Your task to perform on an android device: What's the weather today? Image 0: 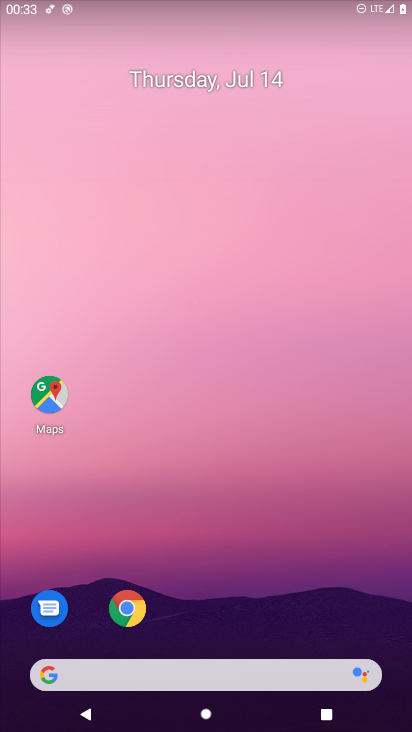
Step 0: click (52, 676)
Your task to perform on an android device: What's the weather today? Image 1: 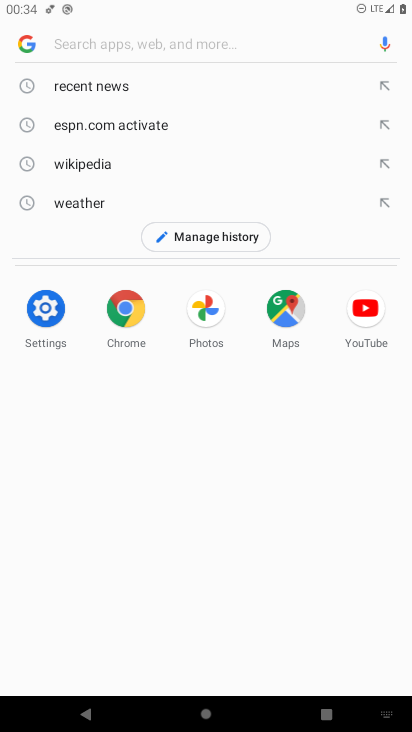
Step 1: click (336, 557)
Your task to perform on an android device: What's the weather today? Image 2: 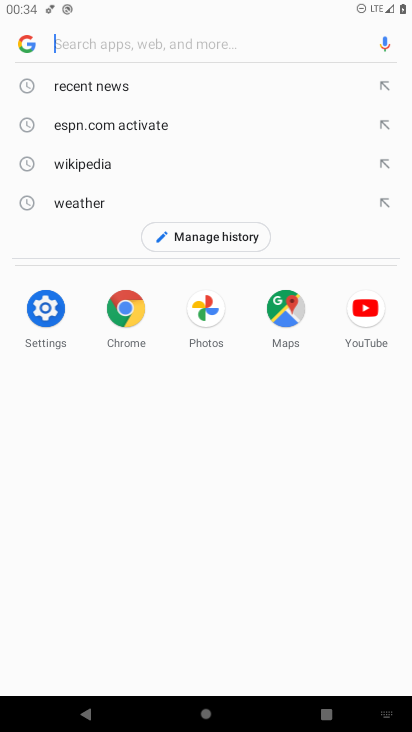
Step 2: type "weather today?"
Your task to perform on an android device: What's the weather today? Image 3: 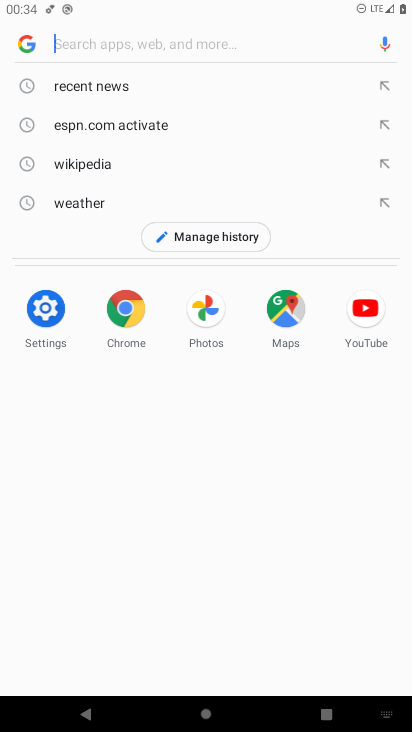
Step 3: click (120, 45)
Your task to perform on an android device: What's the weather today? Image 4: 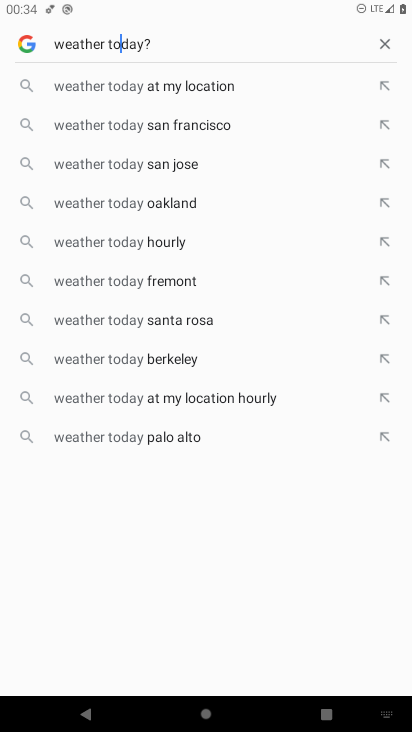
Step 4: press enter
Your task to perform on an android device: What's the weather today? Image 5: 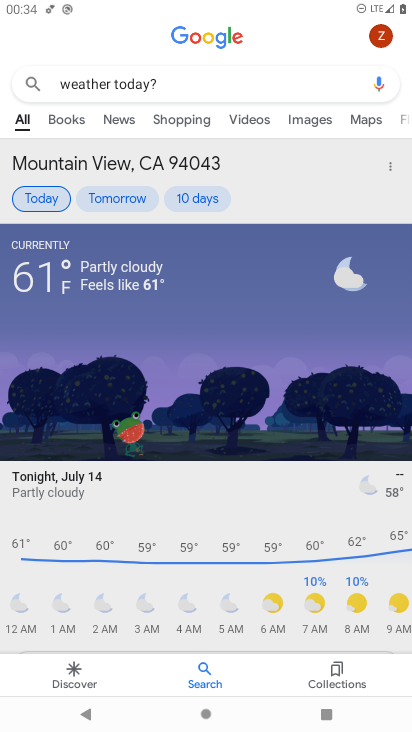
Step 5: task complete